Your task to perform on an android device: What's on my calendar today? Image 0: 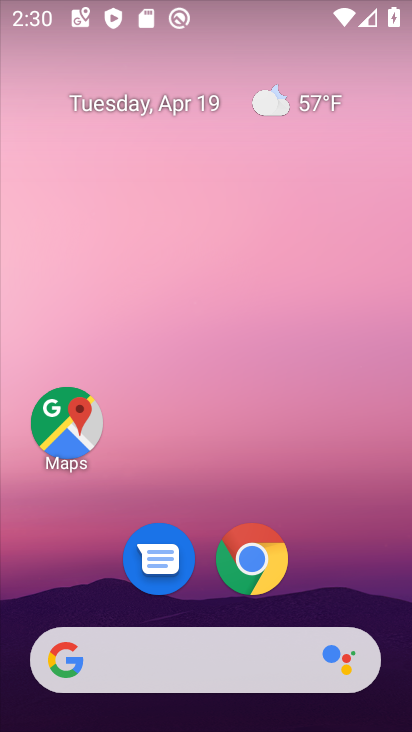
Step 0: drag from (211, 607) to (220, 64)
Your task to perform on an android device: What's on my calendar today? Image 1: 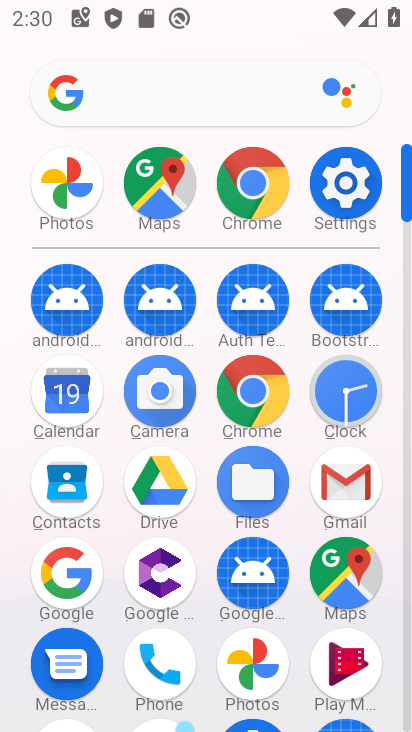
Step 1: click (66, 388)
Your task to perform on an android device: What's on my calendar today? Image 2: 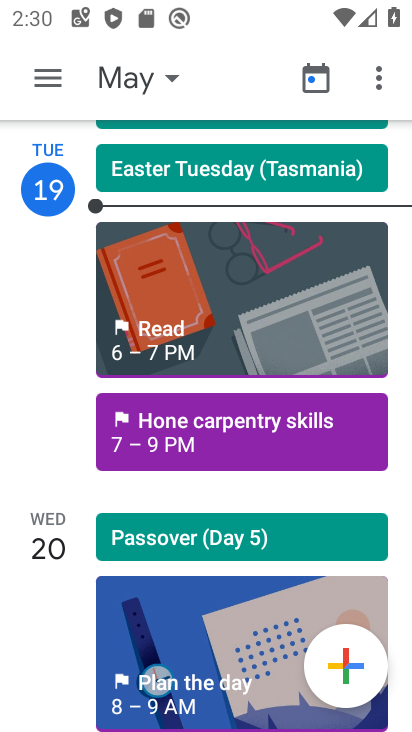
Step 2: drag from (53, 612) to (32, 198)
Your task to perform on an android device: What's on my calendar today? Image 3: 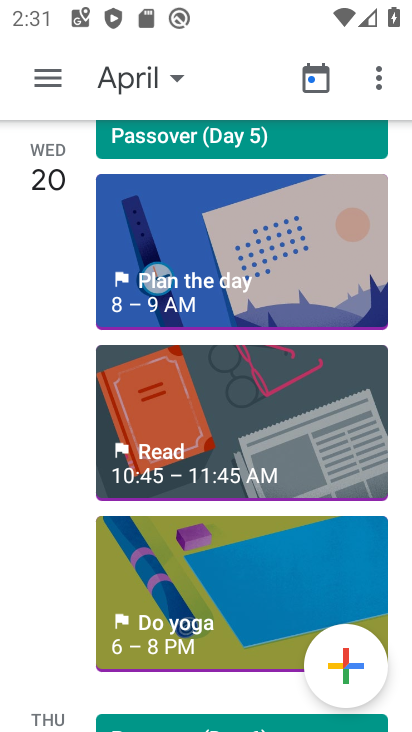
Step 3: drag from (64, 207) to (78, 641)
Your task to perform on an android device: What's on my calendar today? Image 4: 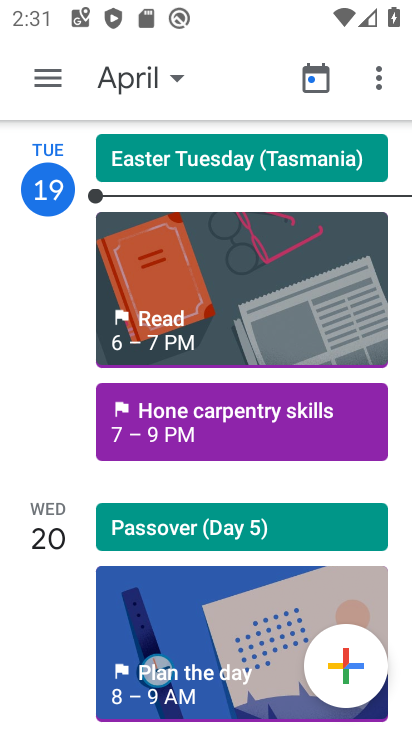
Step 4: click (51, 247)
Your task to perform on an android device: What's on my calendar today? Image 5: 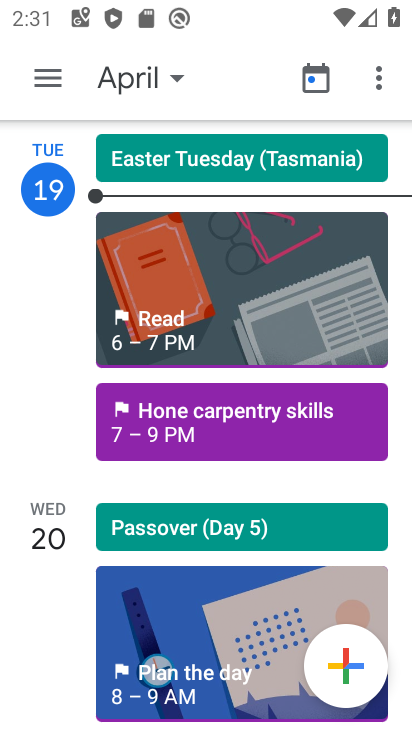
Step 5: click (117, 427)
Your task to perform on an android device: What's on my calendar today? Image 6: 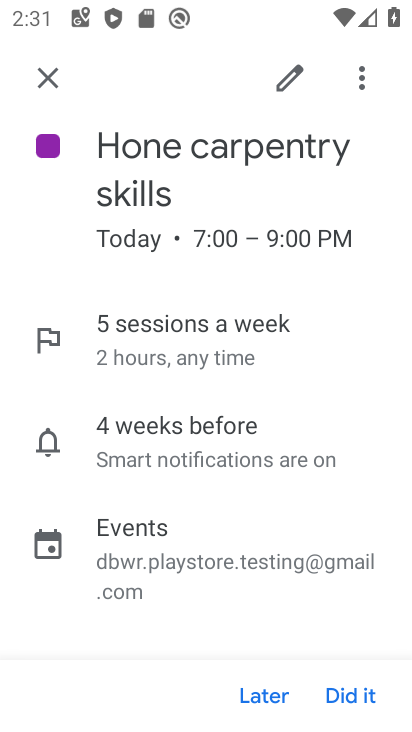
Step 6: click (257, 700)
Your task to perform on an android device: What's on my calendar today? Image 7: 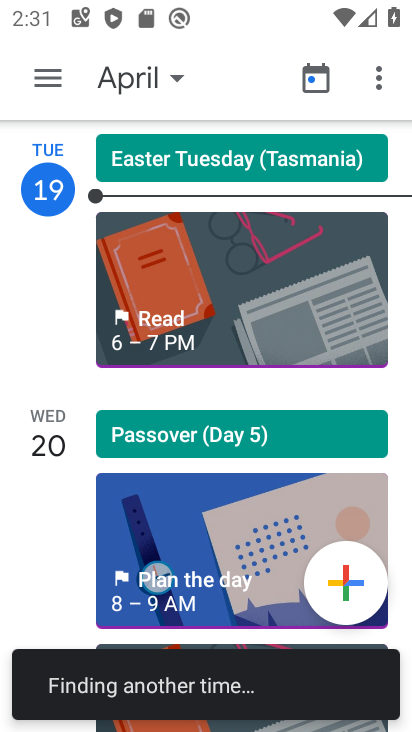
Step 7: task complete